Your task to perform on an android device: change the upload size in google photos Image 0: 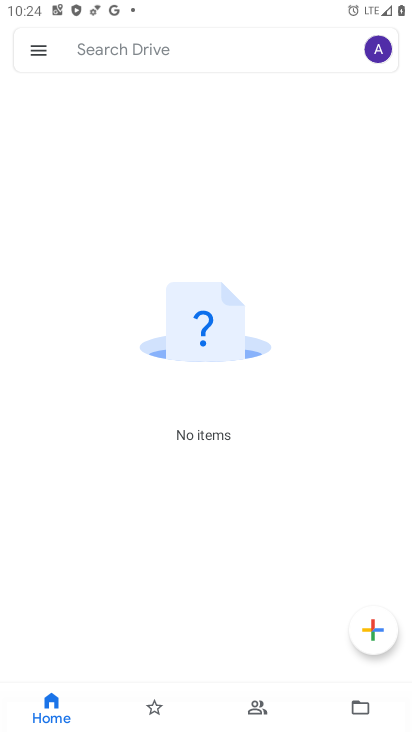
Step 0: press home button
Your task to perform on an android device: change the upload size in google photos Image 1: 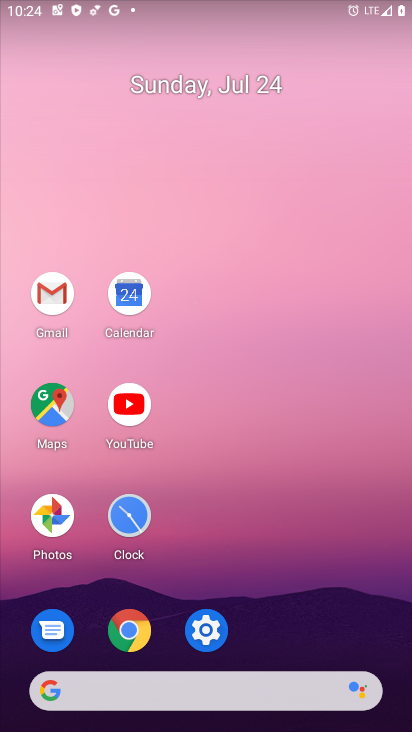
Step 1: click (53, 512)
Your task to perform on an android device: change the upload size in google photos Image 2: 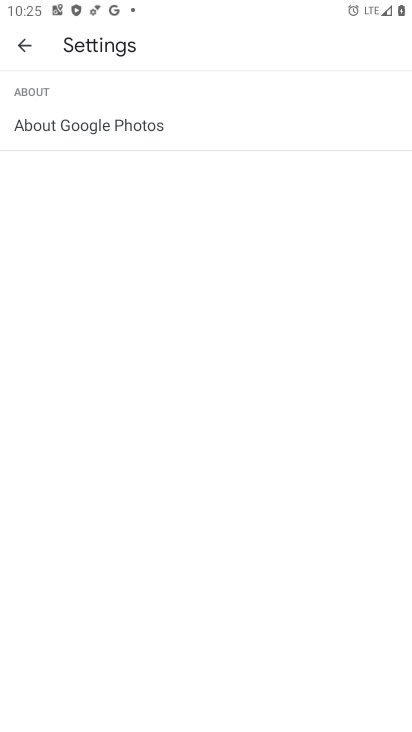
Step 2: click (24, 43)
Your task to perform on an android device: change the upload size in google photos Image 3: 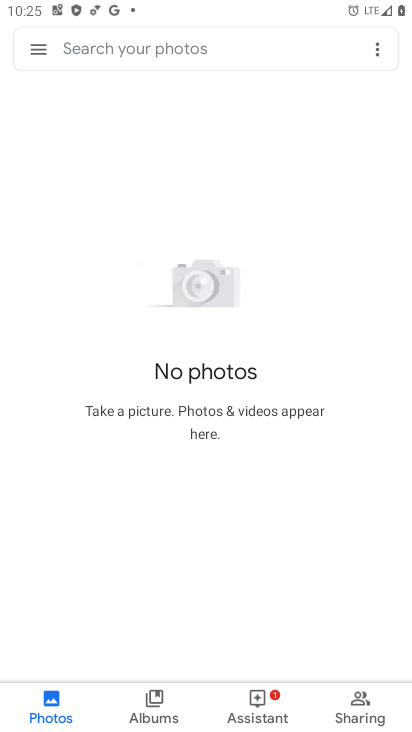
Step 3: click (37, 50)
Your task to perform on an android device: change the upload size in google photos Image 4: 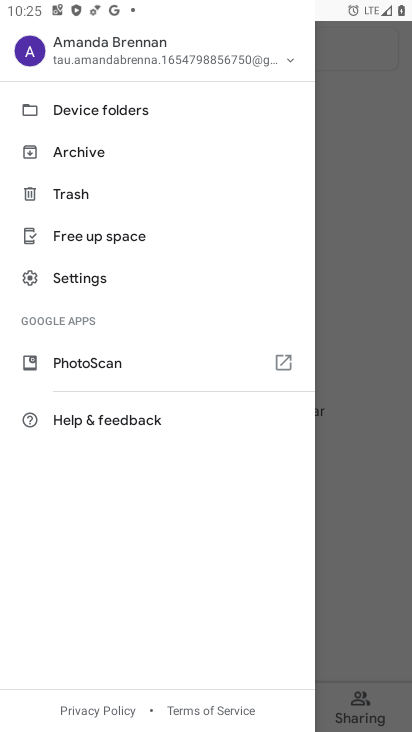
Step 4: click (87, 272)
Your task to perform on an android device: change the upload size in google photos Image 5: 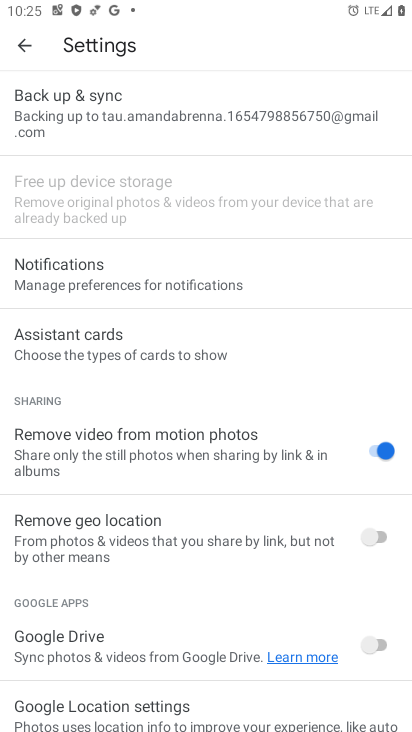
Step 5: drag from (165, 591) to (176, 206)
Your task to perform on an android device: change the upload size in google photos Image 6: 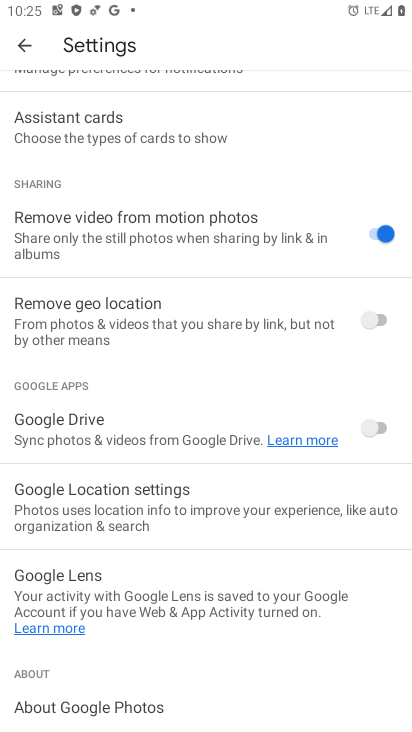
Step 6: drag from (160, 644) to (144, 250)
Your task to perform on an android device: change the upload size in google photos Image 7: 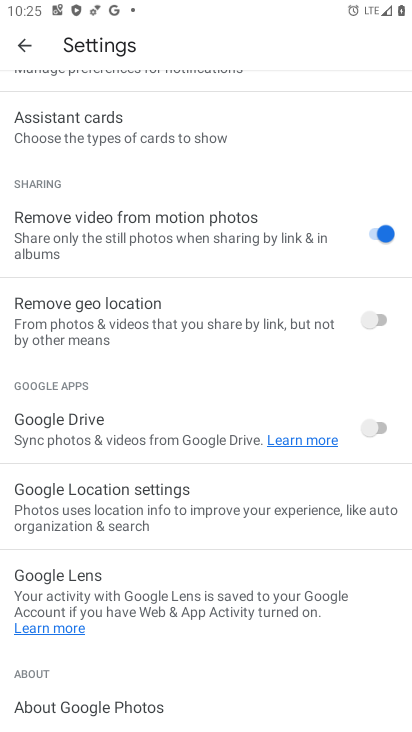
Step 7: drag from (162, 550) to (147, 153)
Your task to perform on an android device: change the upload size in google photos Image 8: 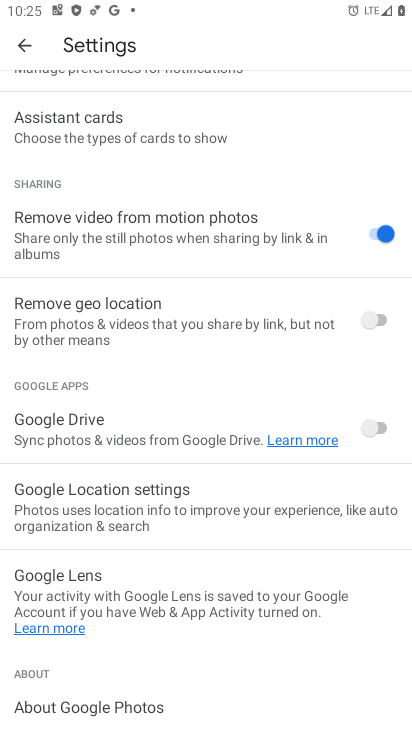
Step 8: click (24, 43)
Your task to perform on an android device: change the upload size in google photos Image 9: 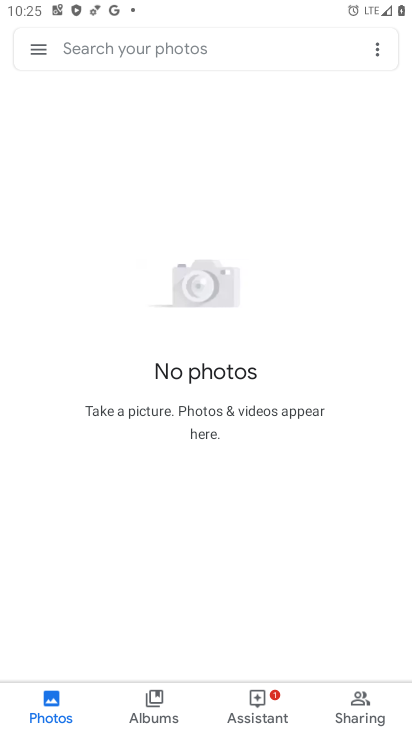
Step 9: click (24, 43)
Your task to perform on an android device: change the upload size in google photos Image 10: 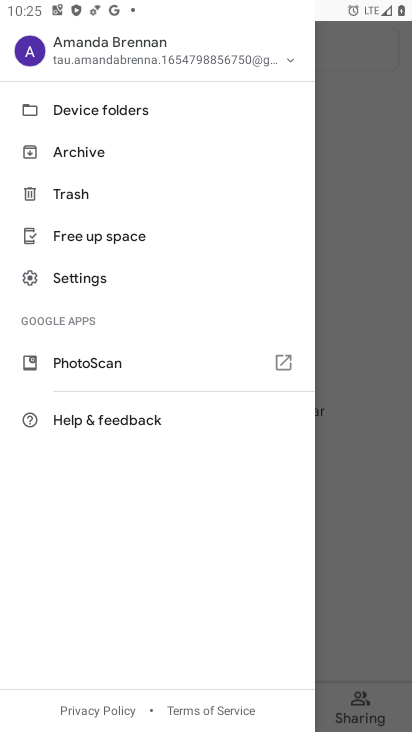
Step 10: click (54, 275)
Your task to perform on an android device: change the upload size in google photos Image 11: 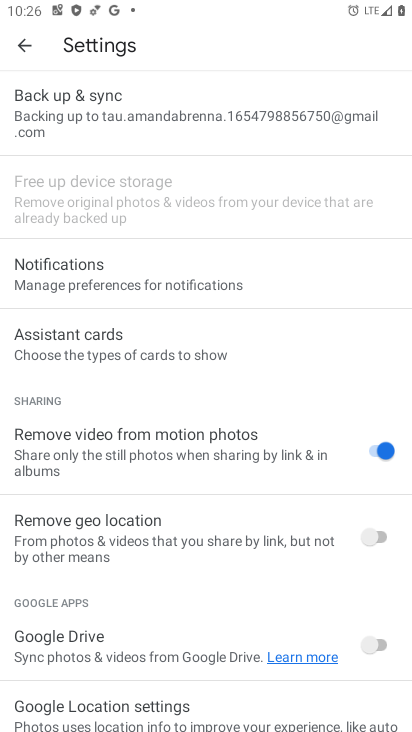
Step 11: click (61, 90)
Your task to perform on an android device: change the upload size in google photos Image 12: 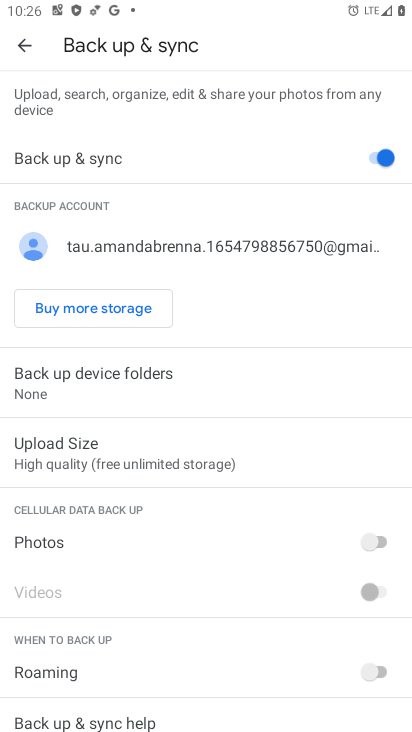
Step 12: click (70, 442)
Your task to perform on an android device: change the upload size in google photos Image 13: 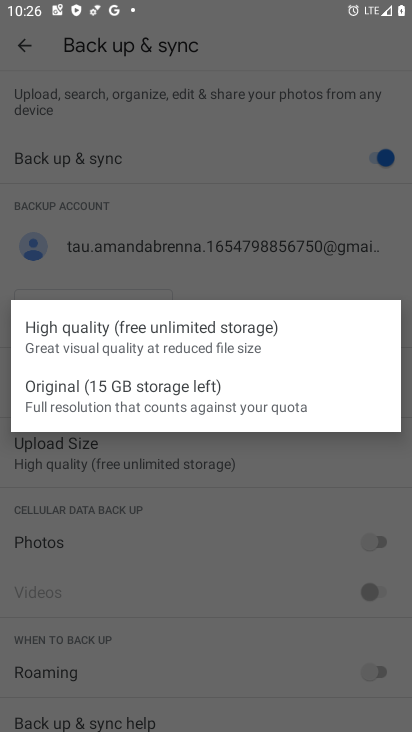
Step 13: click (84, 336)
Your task to perform on an android device: change the upload size in google photos Image 14: 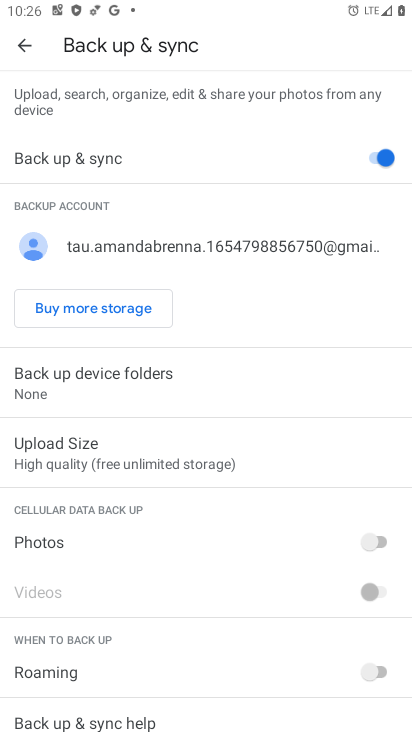
Step 14: task complete